Your task to perform on an android device: Search for "The Dispatcher" by John Scalzi on Goodreads Image 0: 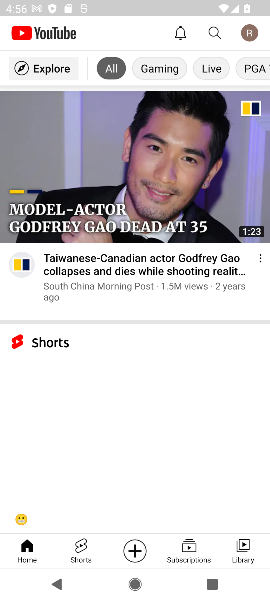
Step 0: press home button
Your task to perform on an android device: Search for "The Dispatcher" by John Scalzi on Goodreads Image 1: 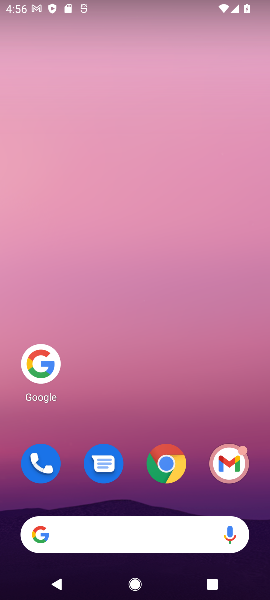
Step 1: click (33, 353)
Your task to perform on an android device: Search for "The Dispatcher" by John Scalzi on Goodreads Image 2: 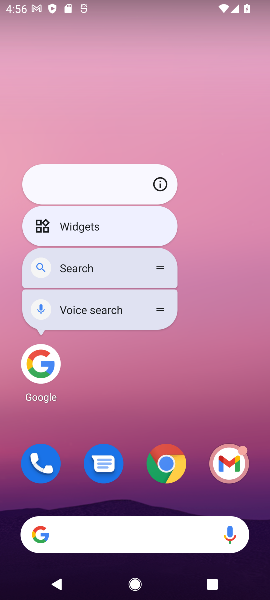
Step 2: click (41, 362)
Your task to perform on an android device: Search for "The Dispatcher" by John Scalzi on Goodreads Image 3: 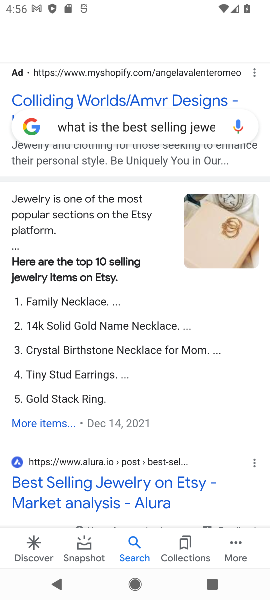
Step 3: drag from (138, 113) to (142, 359)
Your task to perform on an android device: Search for "The Dispatcher" by John Scalzi on Goodreads Image 4: 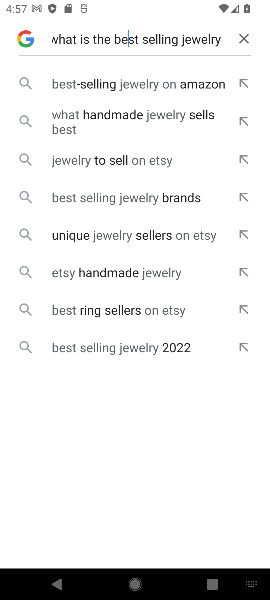
Step 4: click (236, 38)
Your task to perform on an android device: Search for "The Dispatcher" by John Scalzi on Goodreads Image 5: 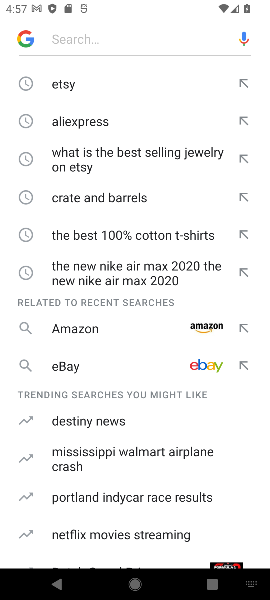
Step 5: click (112, 40)
Your task to perform on an android device: Search for "The Dispatcher" by John Scalzi on Goodreads Image 6: 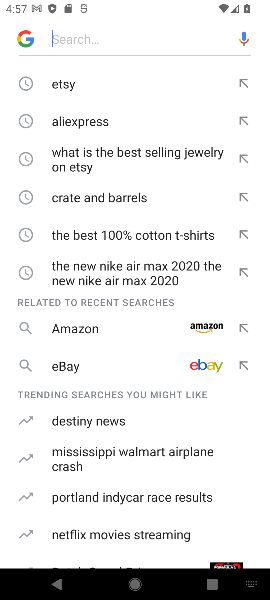
Step 6: type "The Dispatcher" by John Scalzi on Goodreads "
Your task to perform on an android device: Search for "The Dispatcher" by John Scalzi on Goodreads Image 7: 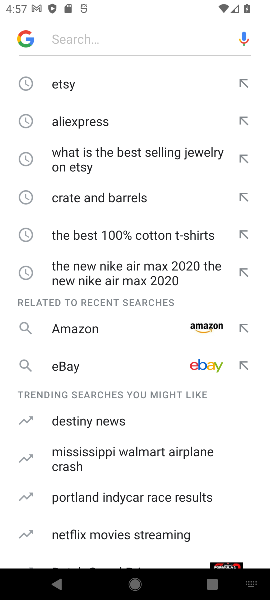
Step 7: click (94, 34)
Your task to perform on an android device: Search for "The Dispatcher" by John Scalzi on Goodreads Image 8: 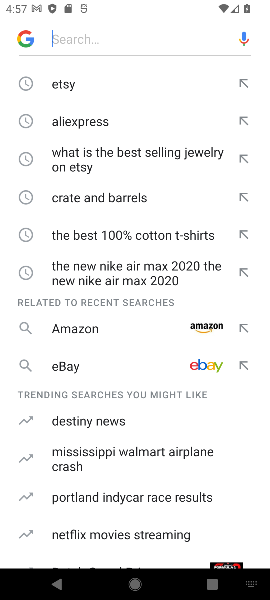
Step 8: type "The Dispatcher" by John Scalzi on Goodreads "
Your task to perform on an android device: Search for "The Dispatcher" by John Scalzi on Goodreads Image 9: 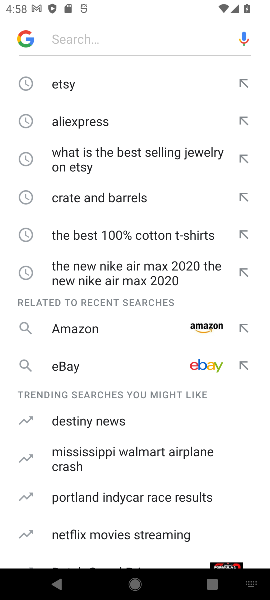
Step 9: click (118, 33)
Your task to perform on an android device: Search for "The Dispatcher" by John Scalzi on Goodreads Image 10: 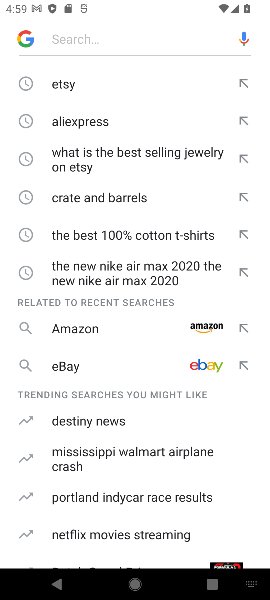
Step 10: click (110, 38)
Your task to perform on an android device: Search for "The Dispatcher" by John Scalzi on Goodreads Image 11: 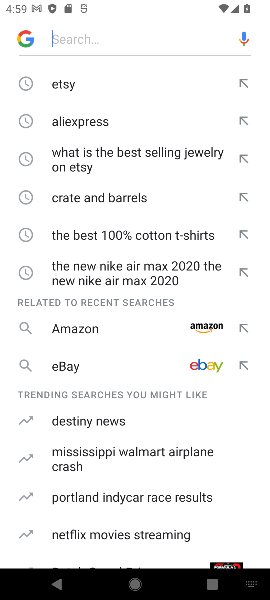
Step 11: type "The Dispatcher" by John Scalzi on Goodreads "
Your task to perform on an android device: Search for "The Dispatcher" by John Scalzi on Goodreads Image 12: 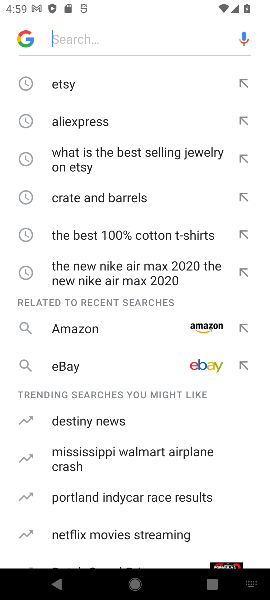
Step 12: click (101, 78)
Your task to perform on an android device: Search for "The Dispatcher" by John Scalzi on Goodreads Image 13: 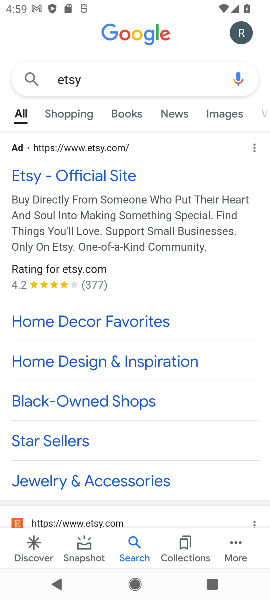
Step 13: click (113, 74)
Your task to perform on an android device: Search for "The Dispatcher" by John Scalzi on Goodreads Image 14: 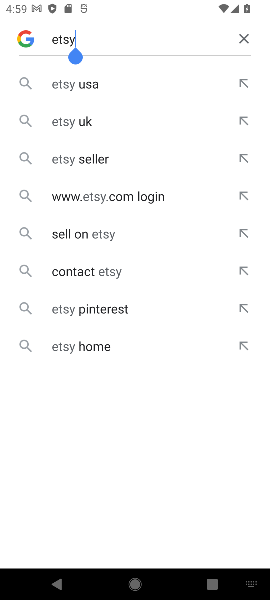
Step 14: click (244, 31)
Your task to perform on an android device: Search for "The Dispatcher" by John Scalzi on Goodreads Image 15: 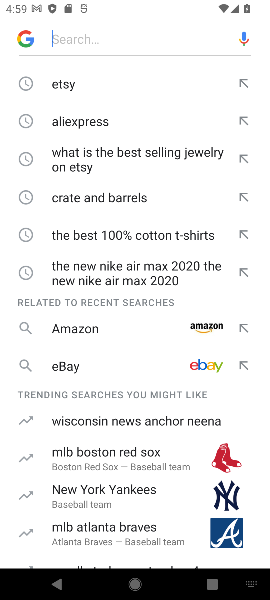
Step 15: click (108, 33)
Your task to perform on an android device: Search for "The Dispatcher" by John Scalzi on Goodreads Image 16: 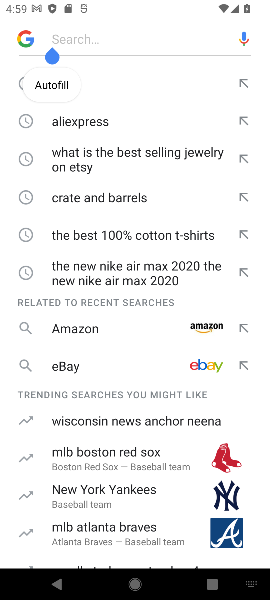
Step 16: type "The Dispatcher "
Your task to perform on an android device: Search for "The Dispatcher" by John Scalzi on Goodreads Image 17: 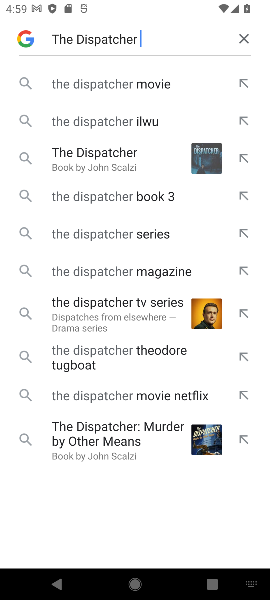
Step 17: click (74, 84)
Your task to perform on an android device: Search for "The Dispatcher" by John Scalzi on Goodreads Image 18: 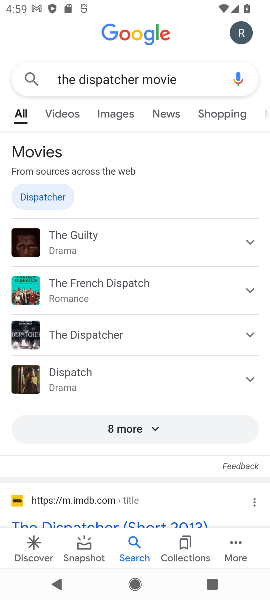
Step 18: task complete